Your task to perform on an android device: check storage Image 0: 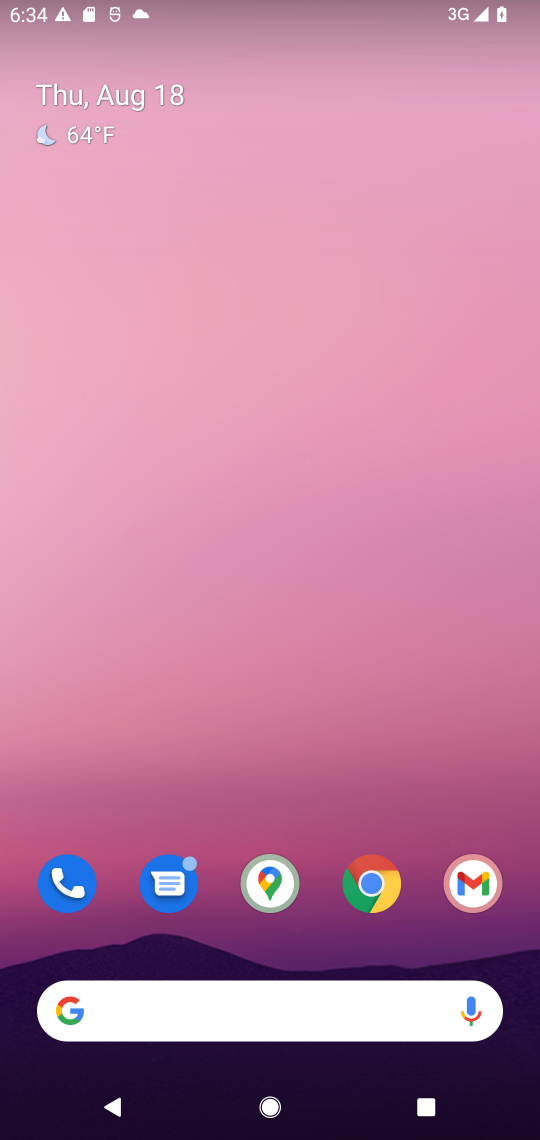
Step 0: drag from (6, 1073) to (252, 363)
Your task to perform on an android device: check storage Image 1: 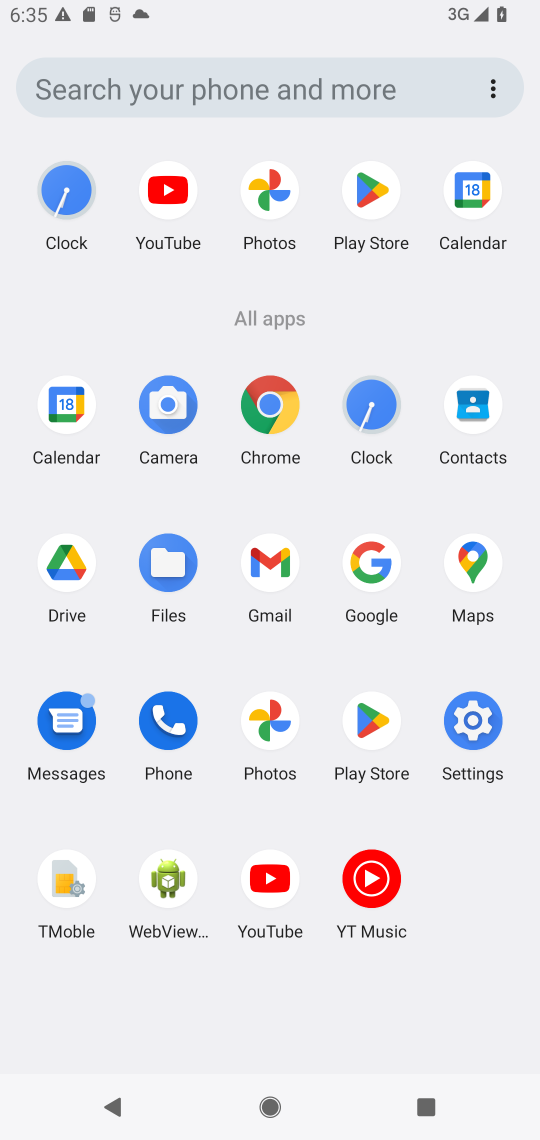
Step 1: click (463, 703)
Your task to perform on an android device: check storage Image 2: 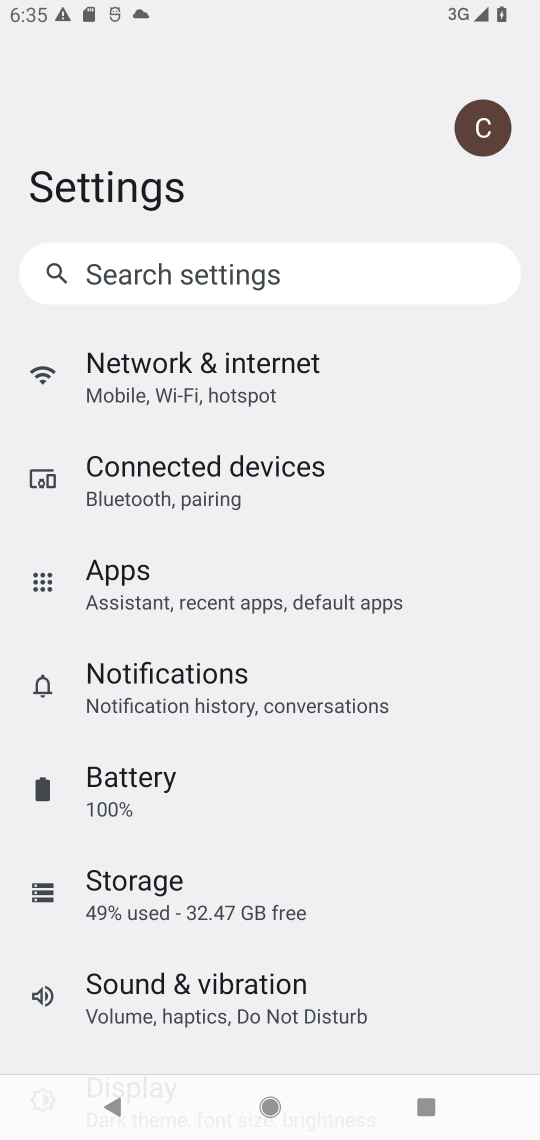
Step 2: click (132, 922)
Your task to perform on an android device: check storage Image 3: 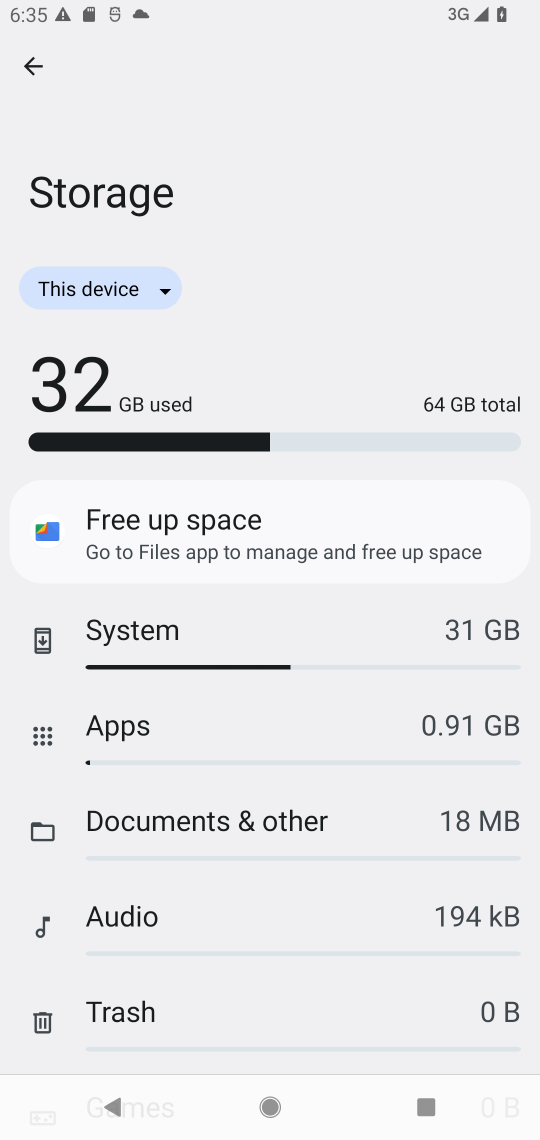
Step 3: task complete